Your task to perform on an android device: search for starred emails in the gmail app Image 0: 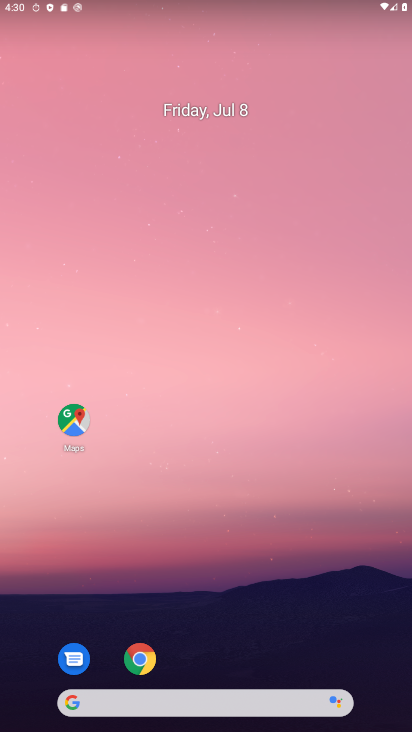
Step 0: drag from (265, 614) to (260, 152)
Your task to perform on an android device: search for starred emails in the gmail app Image 1: 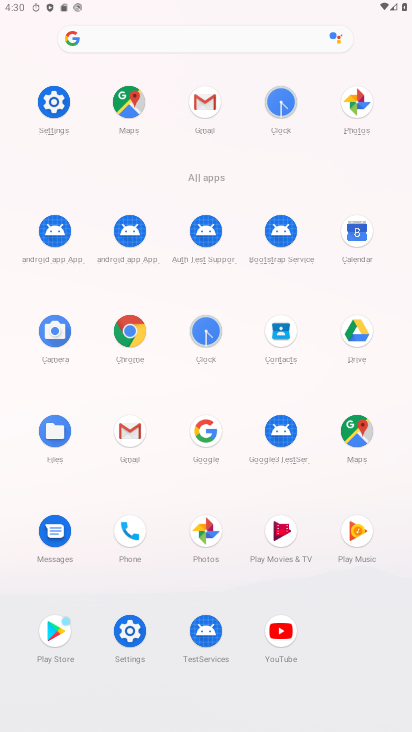
Step 1: click (204, 99)
Your task to perform on an android device: search for starred emails in the gmail app Image 2: 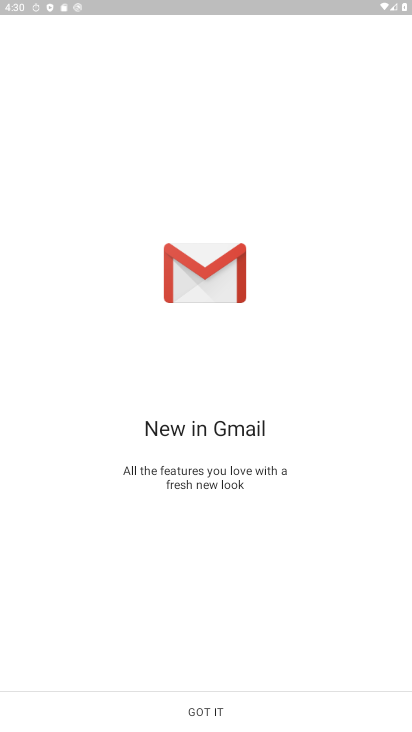
Step 2: click (205, 683)
Your task to perform on an android device: search for starred emails in the gmail app Image 3: 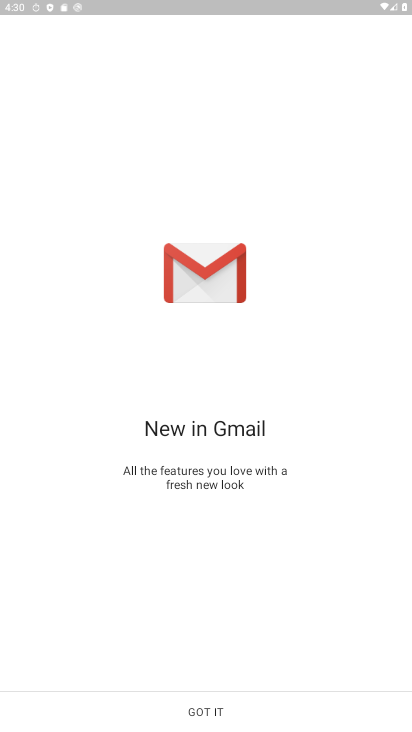
Step 3: click (210, 710)
Your task to perform on an android device: search for starred emails in the gmail app Image 4: 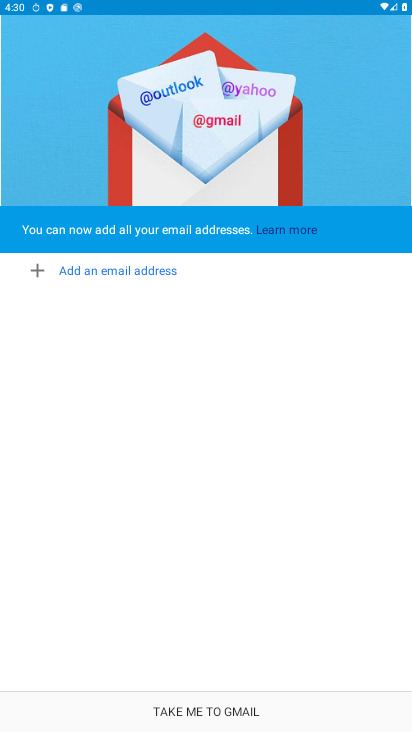
Step 4: click (221, 715)
Your task to perform on an android device: search for starred emails in the gmail app Image 5: 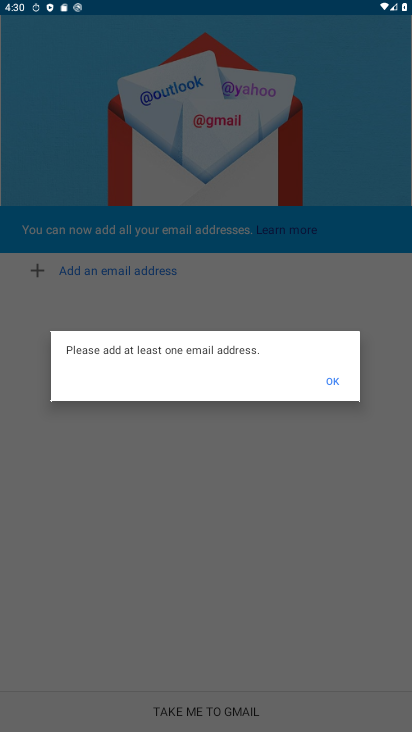
Step 5: click (338, 377)
Your task to perform on an android device: search for starred emails in the gmail app Image 6: 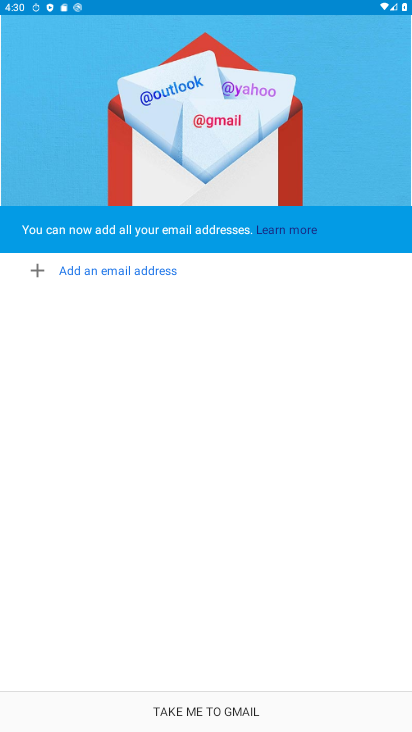
Step 6: task complete